Your task to perform on an android device: turn on notifications settings in the gmail app Image 0: 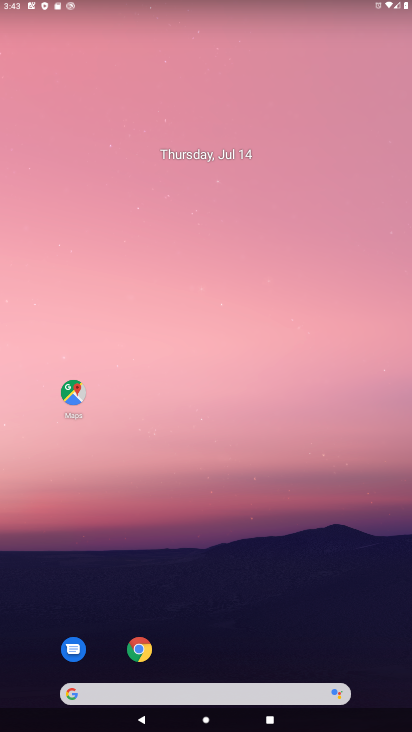
Step 0: drag from (237, 637) to (185, 2)
Your task to perform on an android device: turn on notifications settings in the gmail app Image 1: 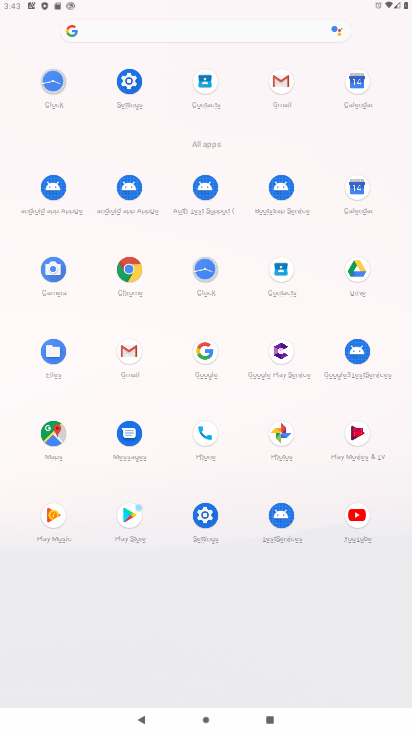
Step 1: click (133, 362)
Your task to perform on an android device: turn on notifications settings in the gmail app Image 2: 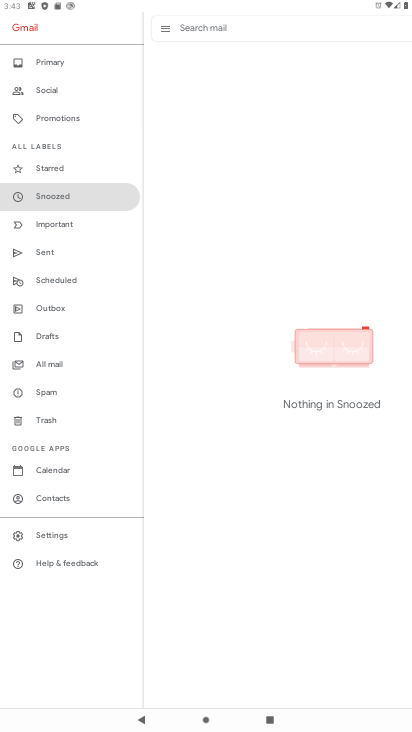
Step 2: click (70, 540)
Your task to perform on an android device: turn on notifications settings in the gmail app Image 3: 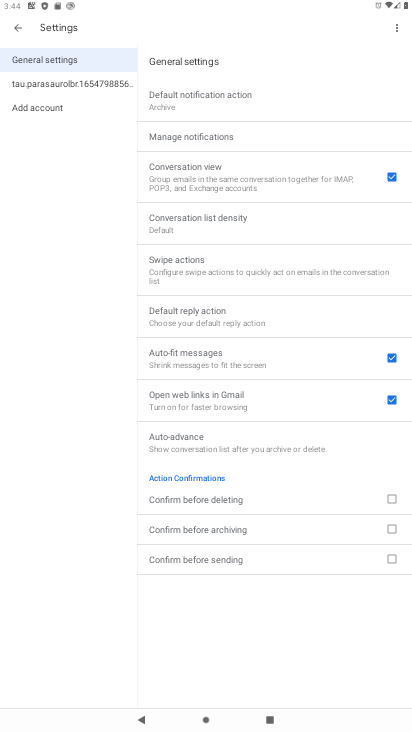
Step 3: click (232, 139)
Your task to perform on an android device: turn on notifications settings in the gmail app Image 4: 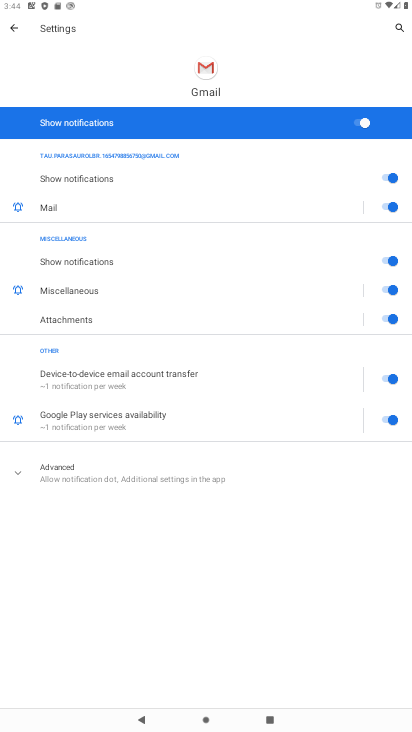
Step 4: task complete